Your task to perform on an android device: change keyboard looks Image 0: 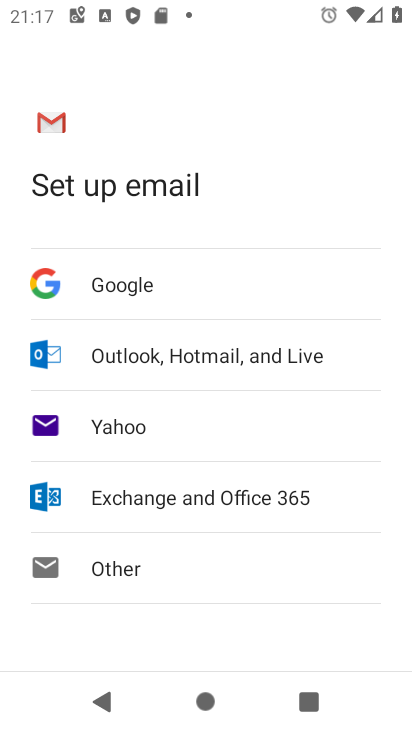
Step 0: press home button
Your task to perform on an android device: change keyboard looks Image 1: 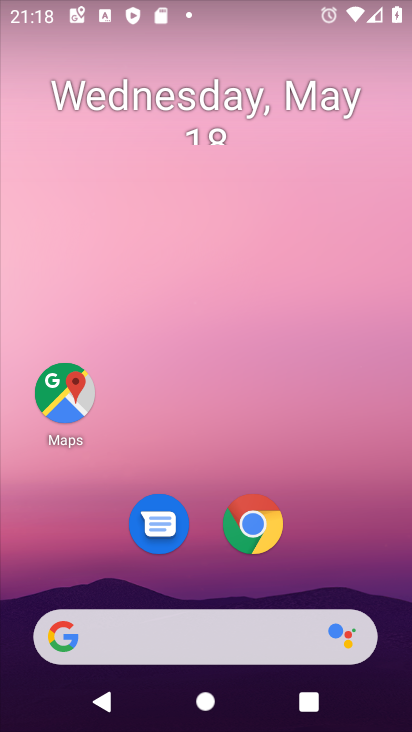
Step 1: drag from (304, 465) to (297, 74)
Your task to perform on an android device: change keyboard looks Image 2: 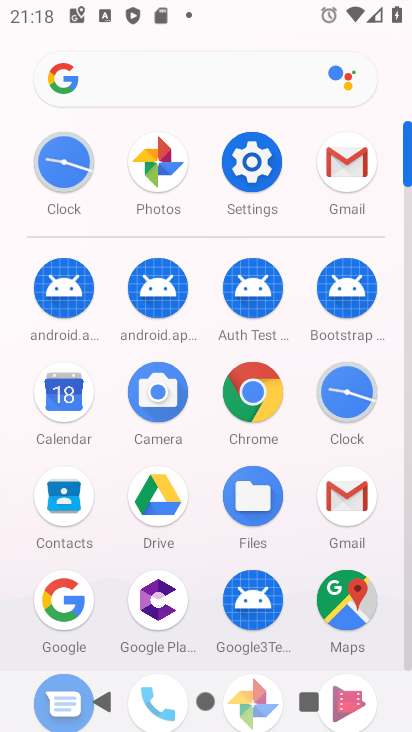
Step 2: click (245, 149)
Your task to perform on an android device: change keyboard looks Image 3: 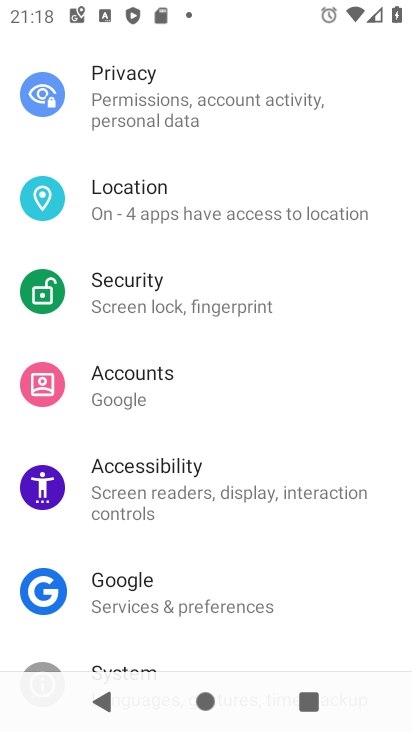
Step 3: drag from (235, 550) to (237, 374)
Your task to perform on an android device: change keyboard looks Image 4: 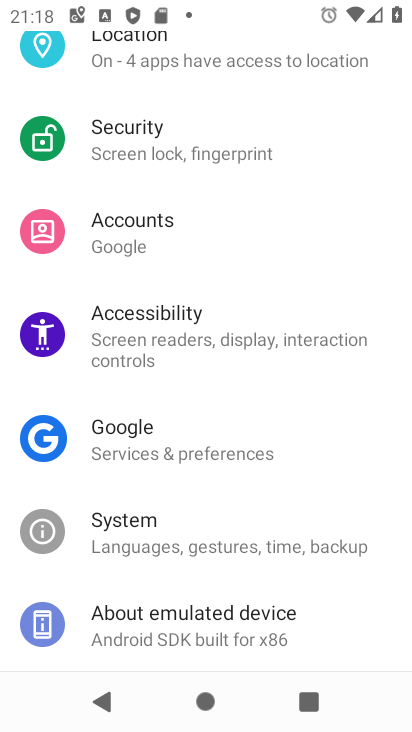
Step 4: click (184, 533)
Your task to perform on an android device: change keyboard looks Image 5: 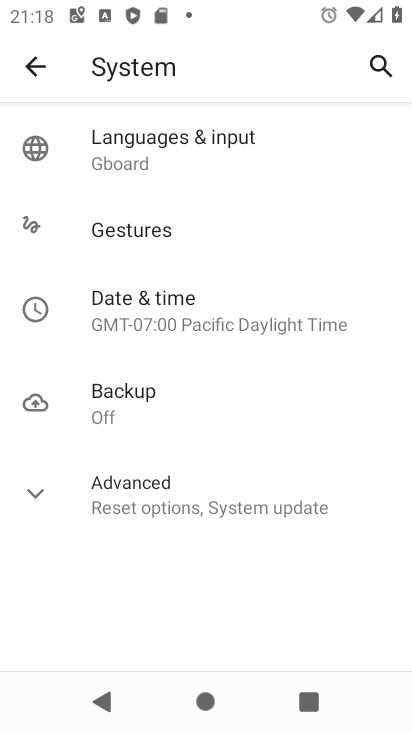
Step 5: click (182, 139)
Your task to perform on an android device: change keyboard looks Image 6: 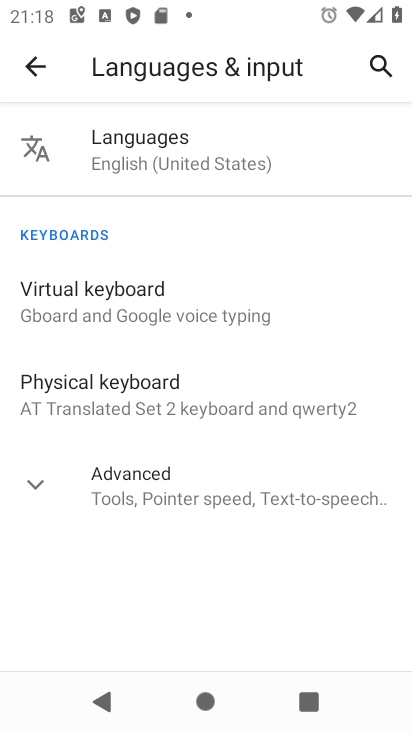
Step 6: click (125, 294)
Your task to perform on an android device: change keyboard looks Image 7: 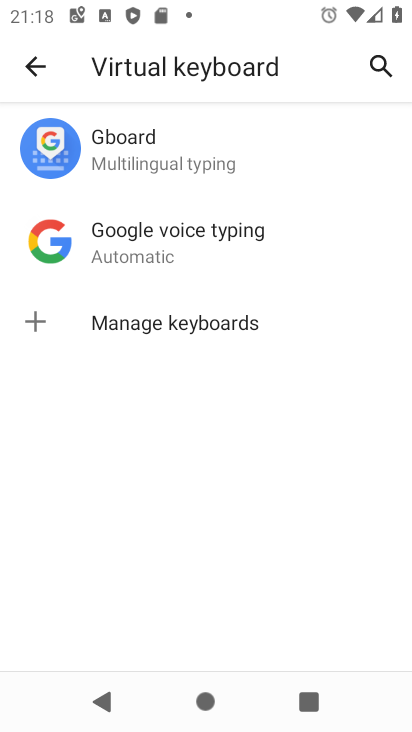
Step 7: click (145, 149)
Your task to perform on an android device: change keyboard looks Image 8: 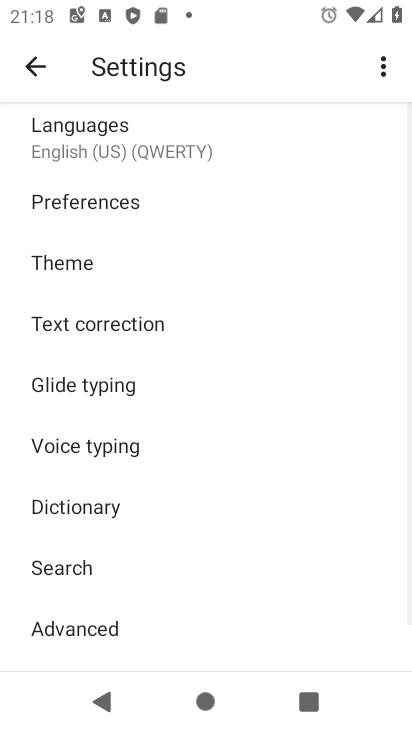
Step 8: click (125, 265)
Your task to perform on an android device: change keyboard looks Image 9: 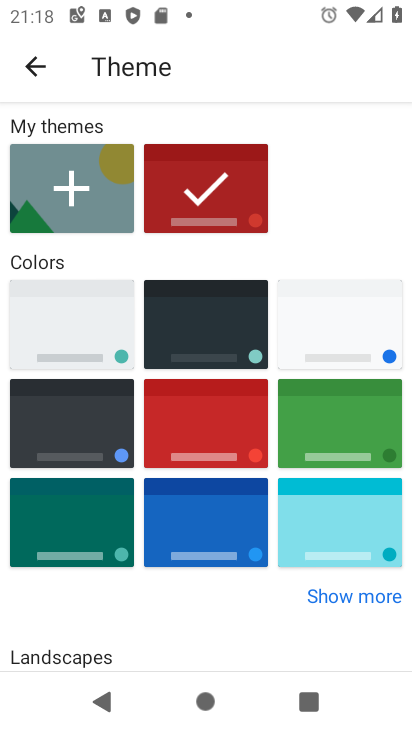
Step 9: click (361, 415)
Your task to perform on an android device: change keyboard looks Image 10: 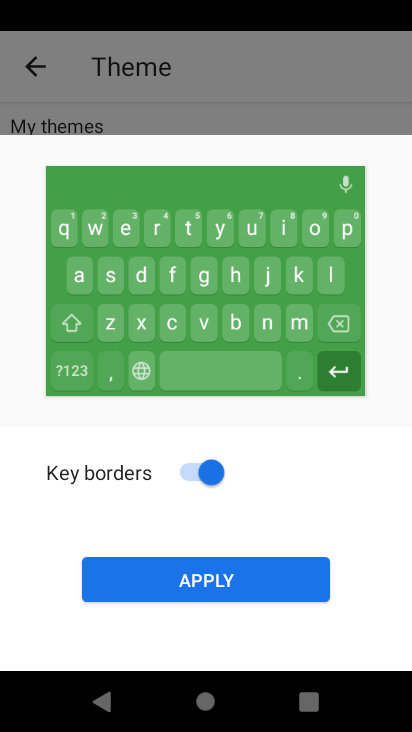
Step 10: click (260, 576)
Your task to perform on an android device: change keyboard looks Image 11: 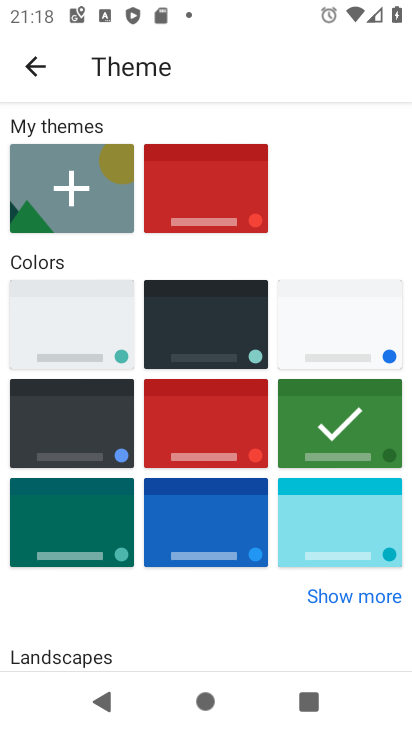
Step 11: task complete